Your task to perform on an android device: turn on showing notifications on the lock screen Image 0: 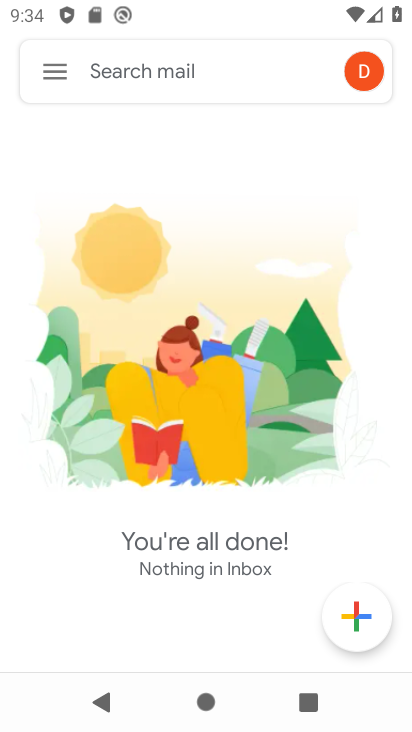
Step 0: press home button
Your task to perform on an android device: turn on showing notifications on the lock screen Image 1: 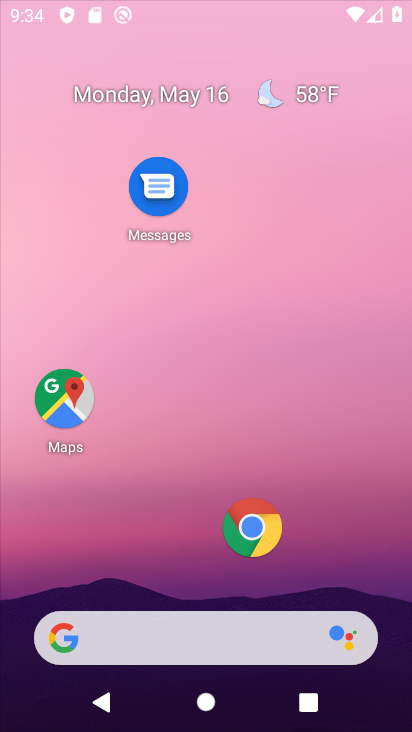
Step 1: drag from (189, 108) to (188, 40)
Your task to perform on an android device: turn on showing notifications on the lock screen Image 2: 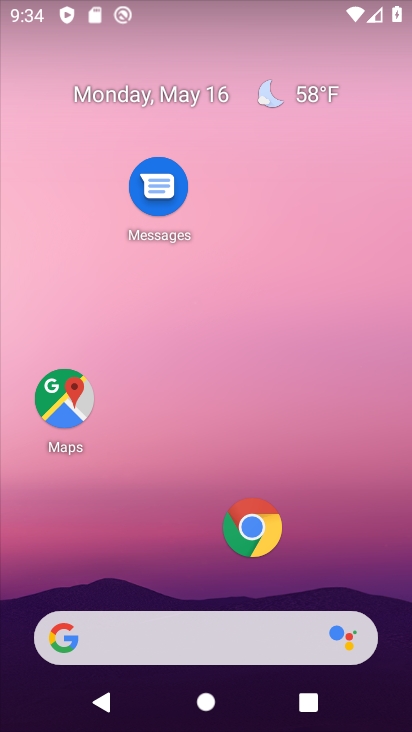
Step 2: drag from (176, 528) to (218, 62)
Your task to perform on an android device: turn on showing notifications on the lock screen Image 3: 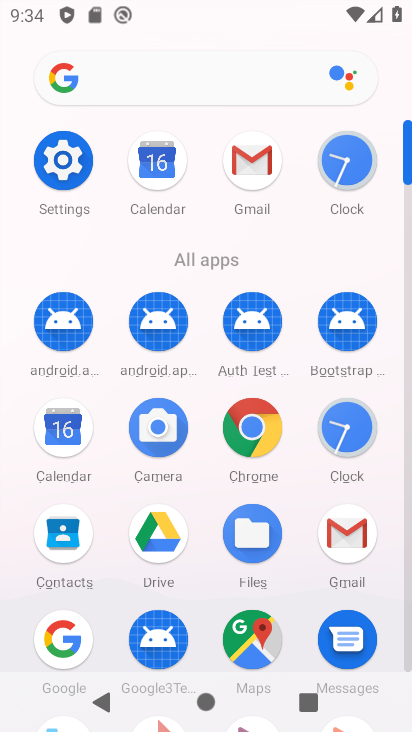
Step 3: click (64, 165)
Your task to perform on an android device: turn on showing notifications on the lock screen Image 4: 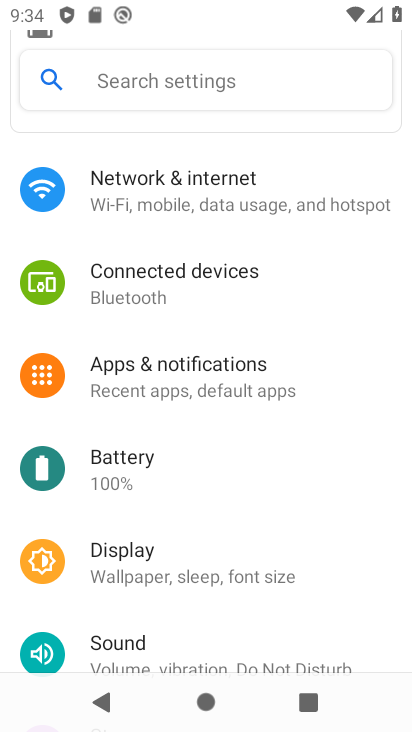
Step 4: click (211, 372)
Your task to perform on an android device: turn on showing notifications on the lock screen Image 5: 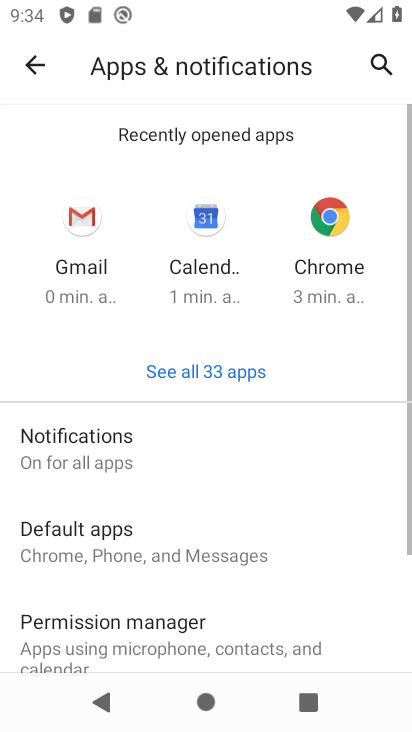
Step 5: click (145, 460)
Your task to perform on an android device: turn on showing notifications on the lock screen Image 6: 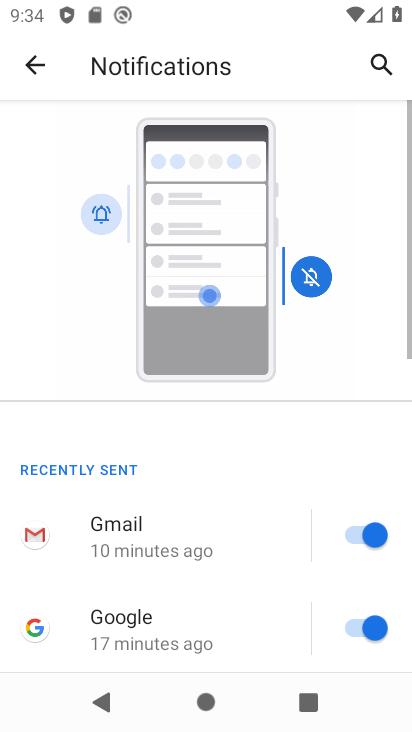
Step 6: drag from (233, 579) to (237, 56)
Your task to perform on an android device: turn on showing notifications on the lock screen Image 7: 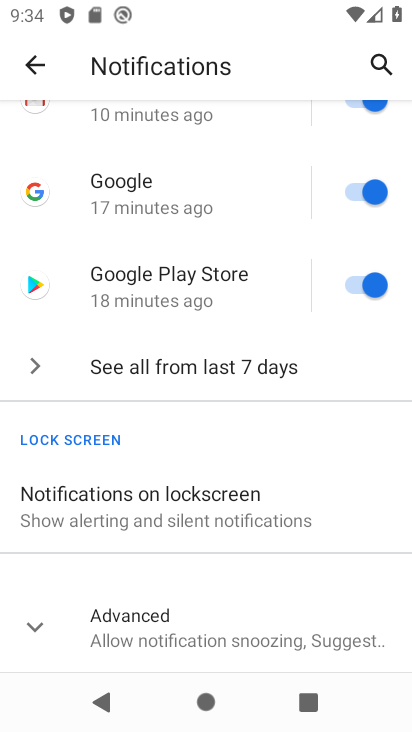
Step 7: click (181, 504)
Your task to perform on an android device: turn on showing notifications on the lock screen Image 8: 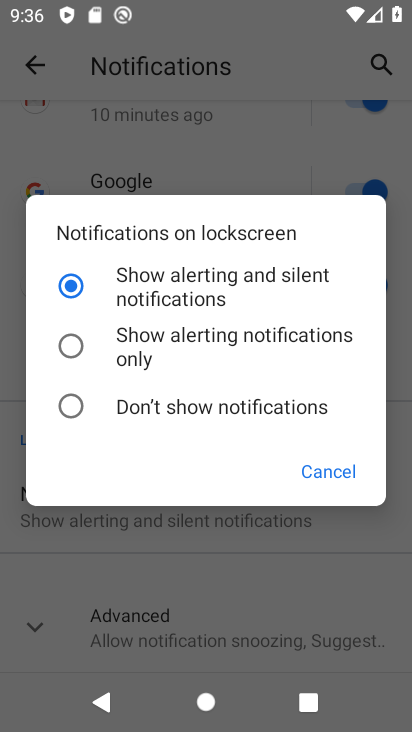
Step 8: task complete